Your task to perform on an android device: Go to Yahoo.com Image 0: 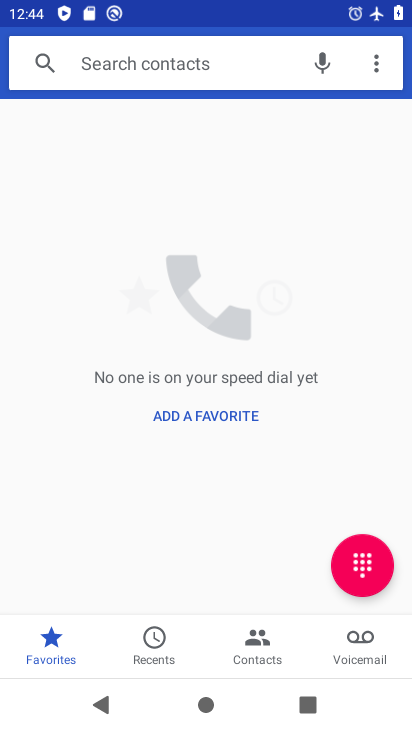
Step 0: press home button
Your task to perform on an android device: Go to Yahoo.com Image 1: 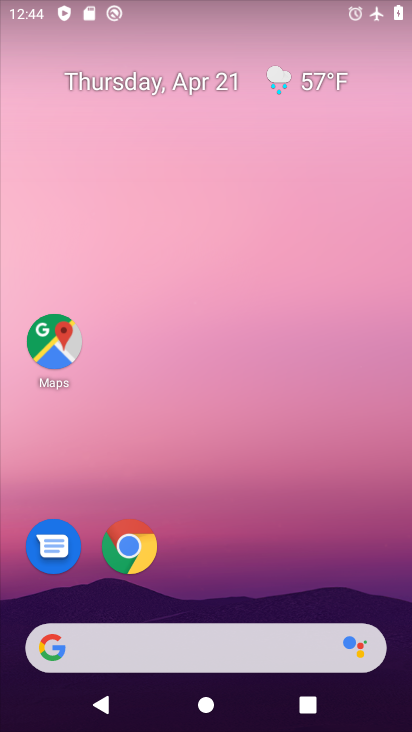
Step 1: click (142, 556)
Your task to perform on an android device: Go to Yahoo.com Image 2: 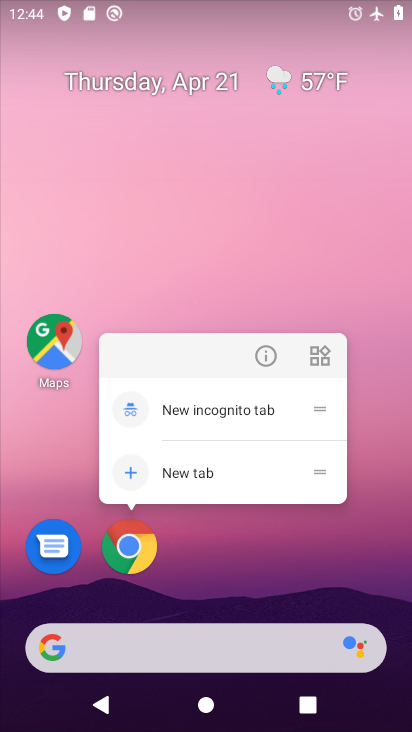
Step 2: click (157, 555)
Your task to perform on an android device: Go to Yahoo.com Image 3: 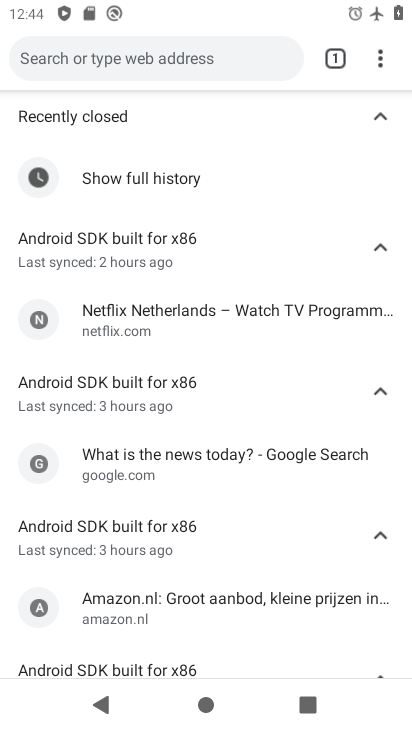
Step 3: click (237, 54)
Your task to perform on an android device: Go to Yahoo.com Image 4: 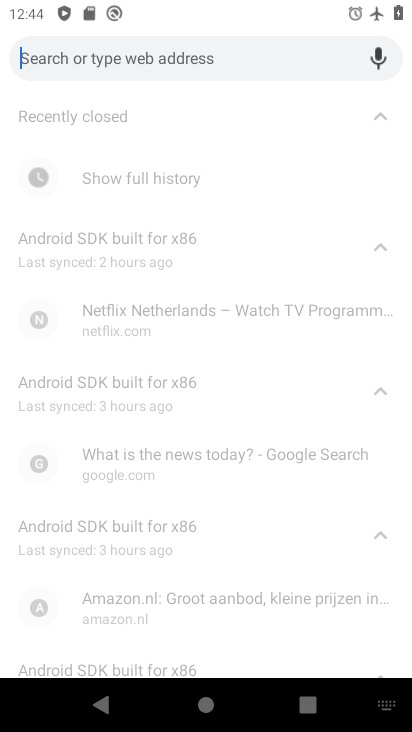
Step 4: type "yahoo.com"
Your task to perform on an android device: Go to Yahoo.com Image 5: 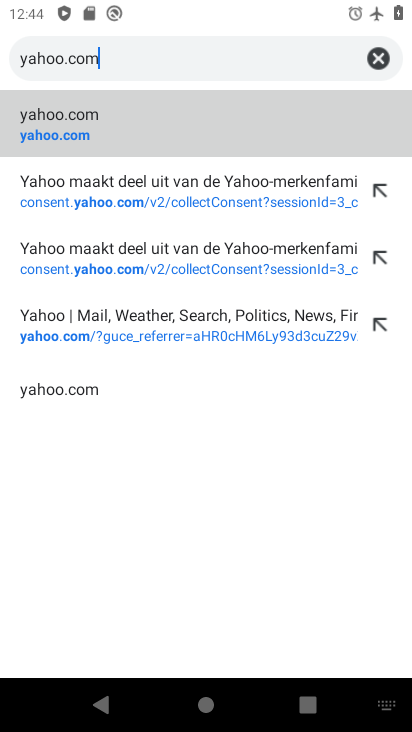
Step 5: click (114, 118)
Your task to perform on an android device: Go to Yahoo.com Image 6: 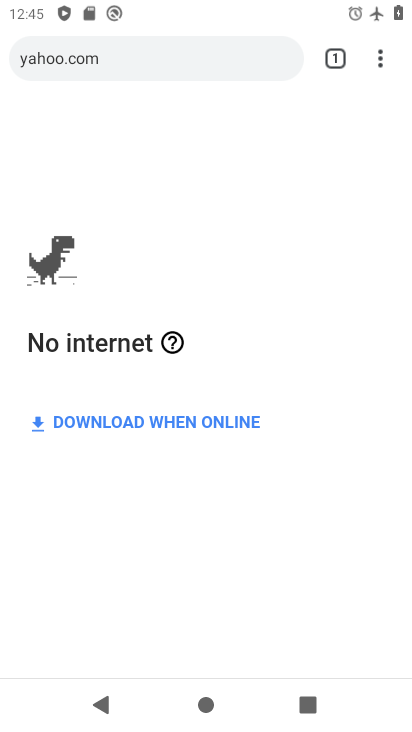
Step 6: task complete